Your task to perform on an android device: turn notification dots on Image 0: 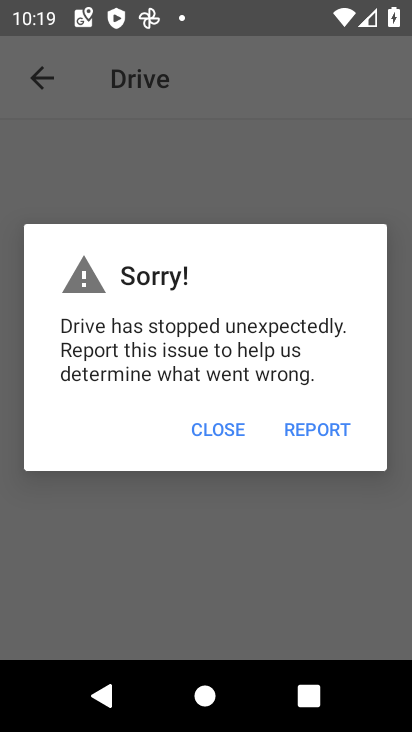
Step 0: press home button
Your task to perform on an android device: turn notification dots on Image 1: 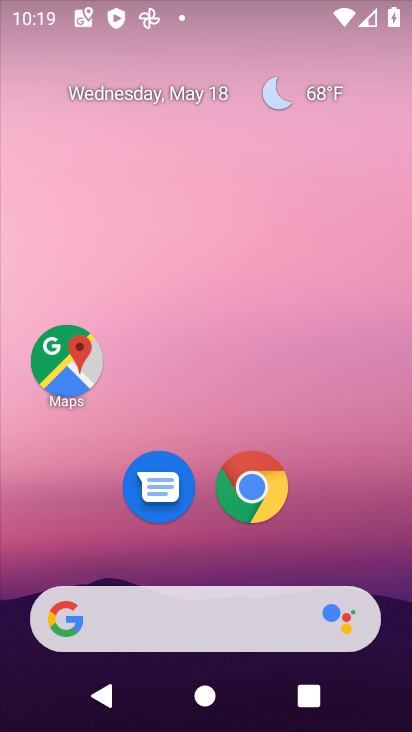
Step 1: drag from (344, 541) to (338, 180)
Your task to perform on an android device: turn notification dots on Image 2: 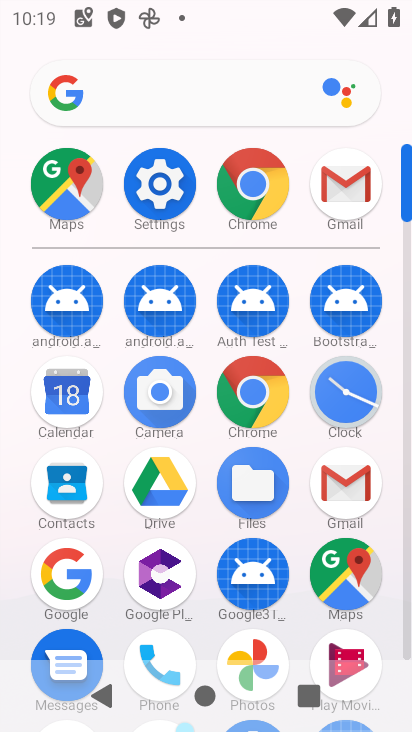
Step 2: click (146, 177)
Your task to perform on an android device: turn notification dots on Image 3: 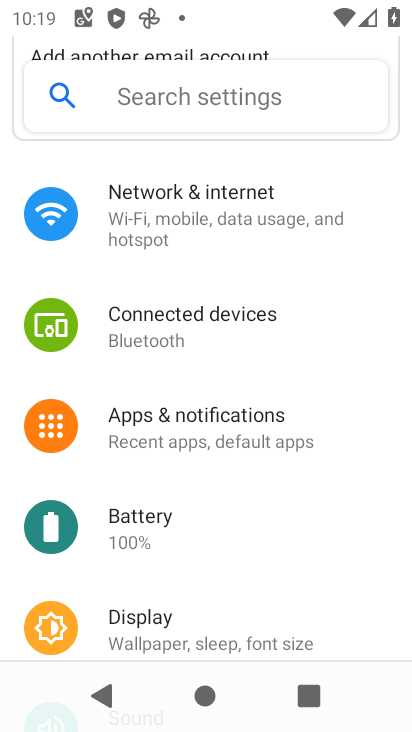
Step 3: click (184, 418)
Your task to perform on an android device: turn notification dots on Image 4: 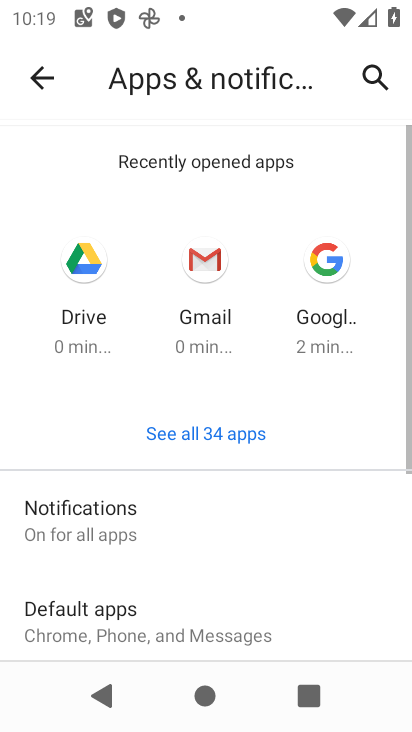
Step 4: click (110, 532)
Your task to perform on an android device: turn notification dots on Image 5: 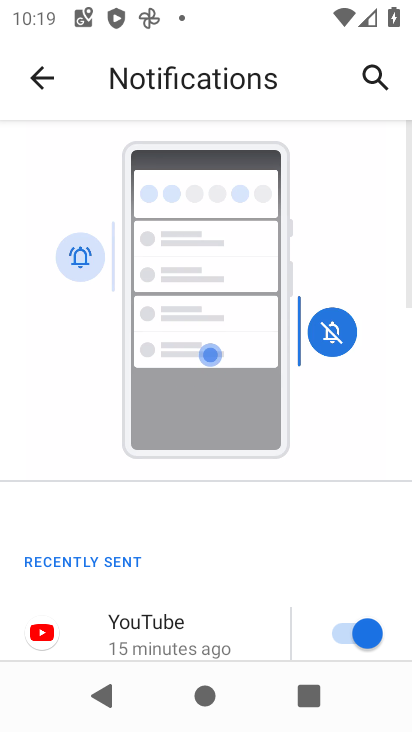
Step 5: drag from (229, 551) to (322, 236)
Your task to perform on an android device: turn notification dots on Image 6: 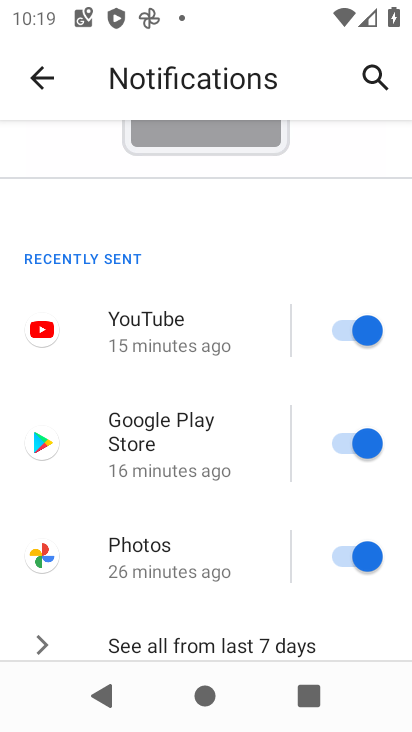
Step 6: drag from (287, 563) to (322, 283)
Your task to perform on an android device: turn notification dots on Image 7: 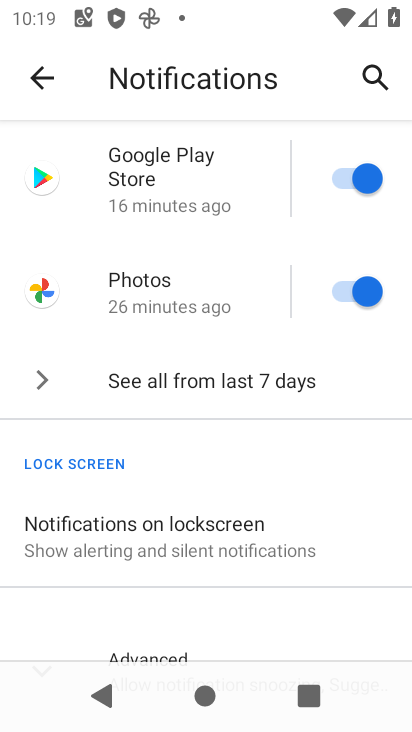
Step 7: drag from (298, 569) to (308, 228)
Your task to perform on an android device: turn notification dots on Image 8: 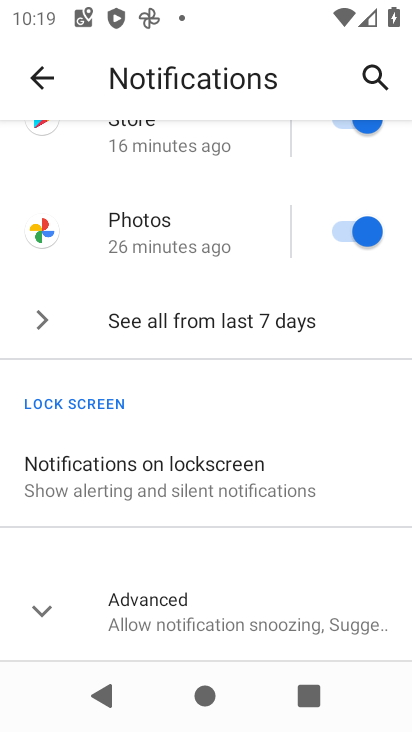
Step 8: click (242, 618)
Your task to perform on an android device: turn notification dots on Image 9: 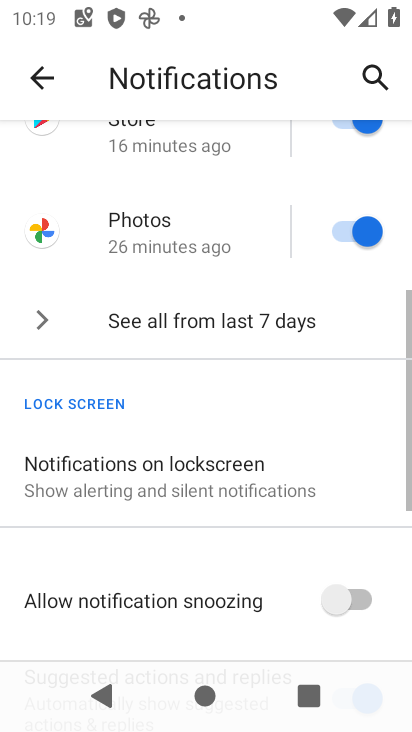
Step 9: task complete